Your task to perform on an android device: Clear the shopping cart on ebay.com. Add energizer triple a to the cart on ebay.com Image 0: 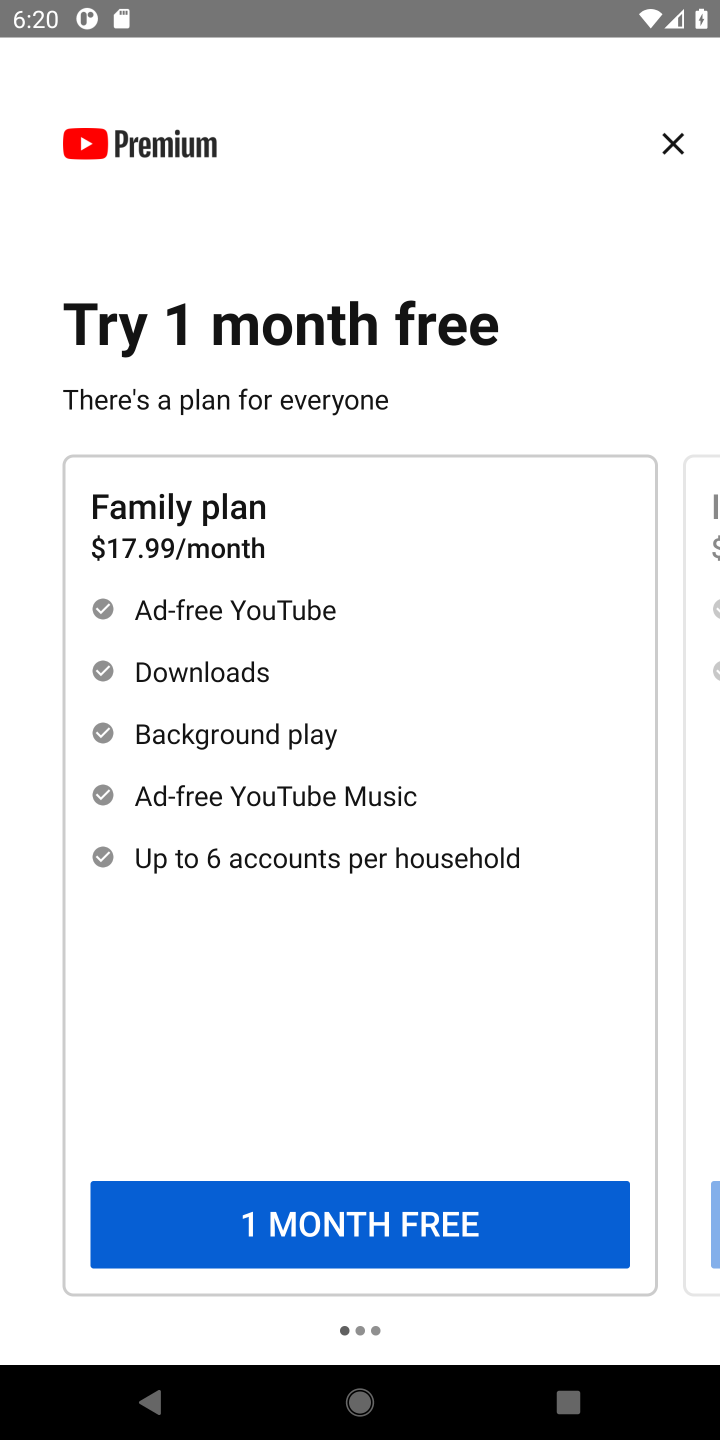
Step 0: press home button
Your task to perform on an android device: Clear the shopping cart on ebay.com. Add energizer triple a to the cart on ebay.com Image 1: 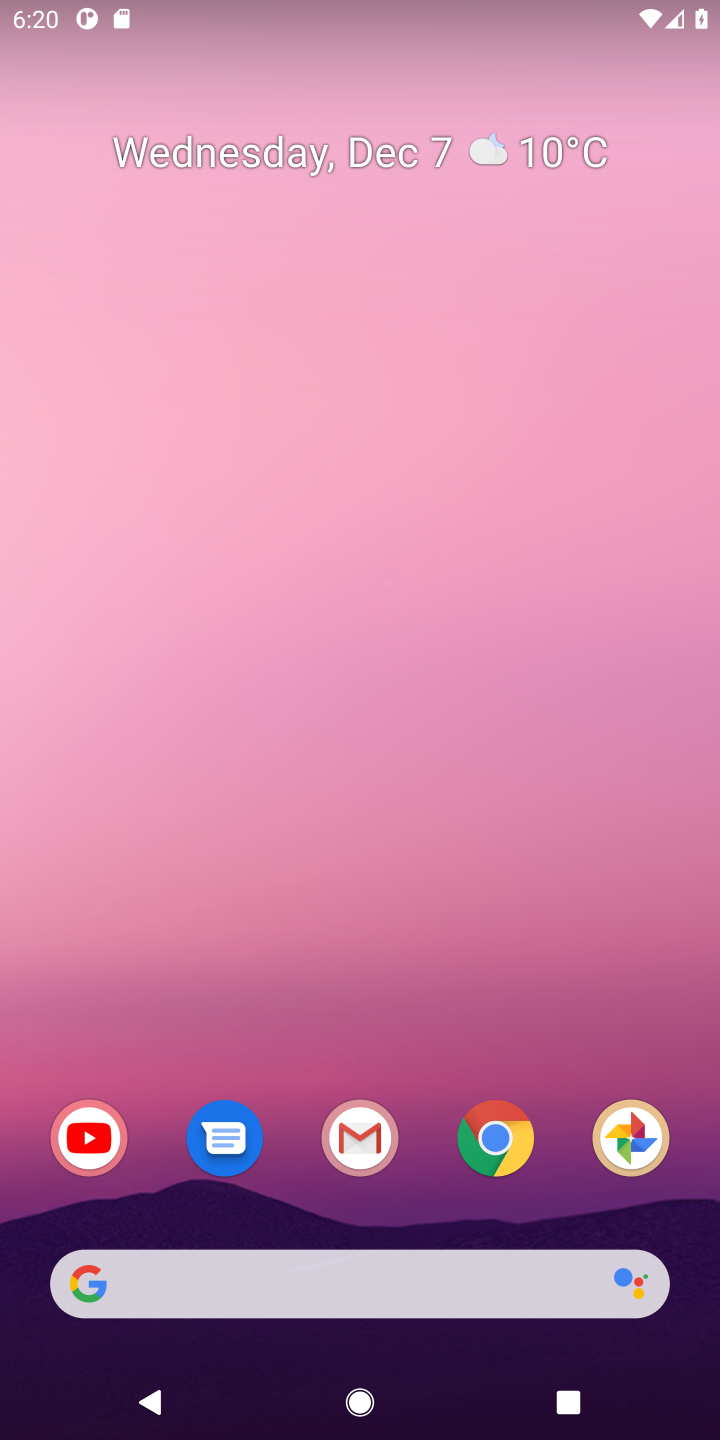
Step 1: click (138, 1275)
Your task to perform on an android device: Clear the shopping cart on ebay.com. Add energizer triple a to the cart on ebay.com Image 2: 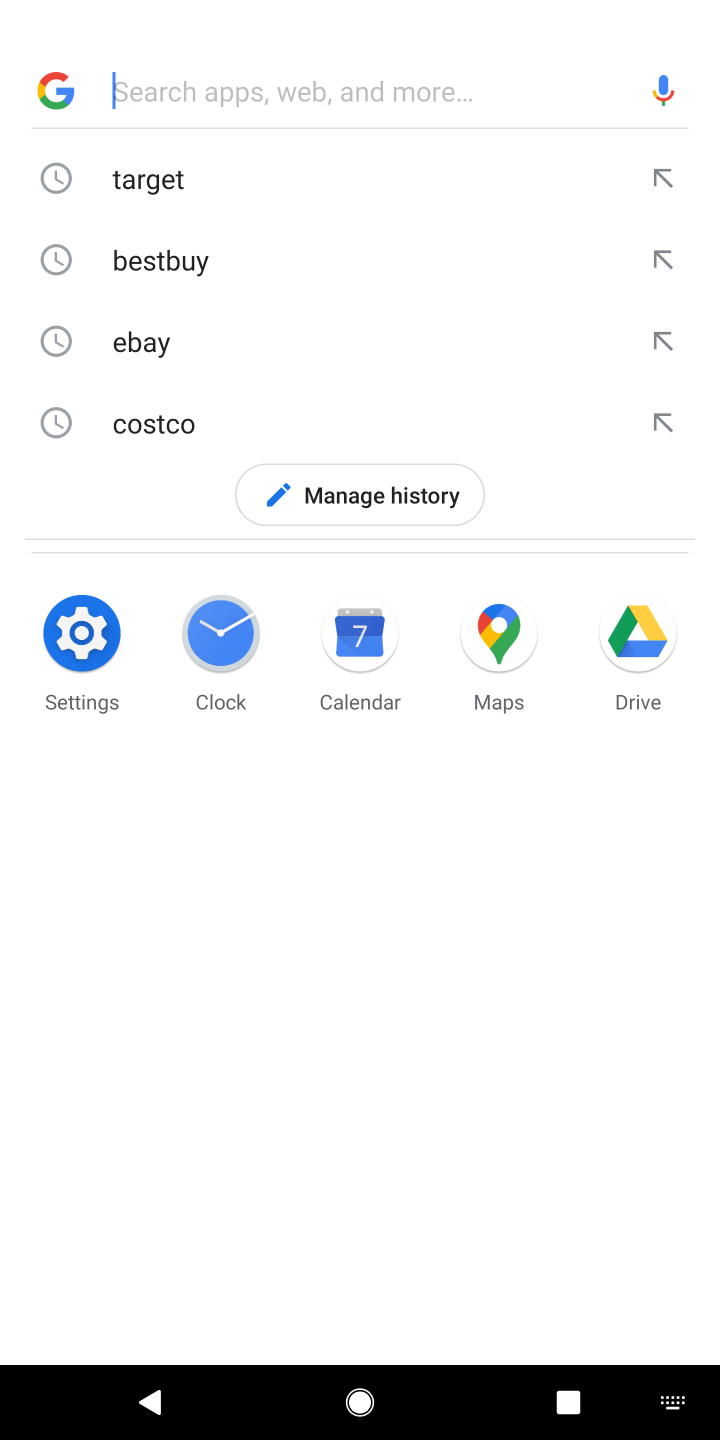
Step 2: press enter
Your task to perform on an android device: Clear the shopping cart on ebay.com. Add energizer triple a to the cart on ebay.com Image 3: 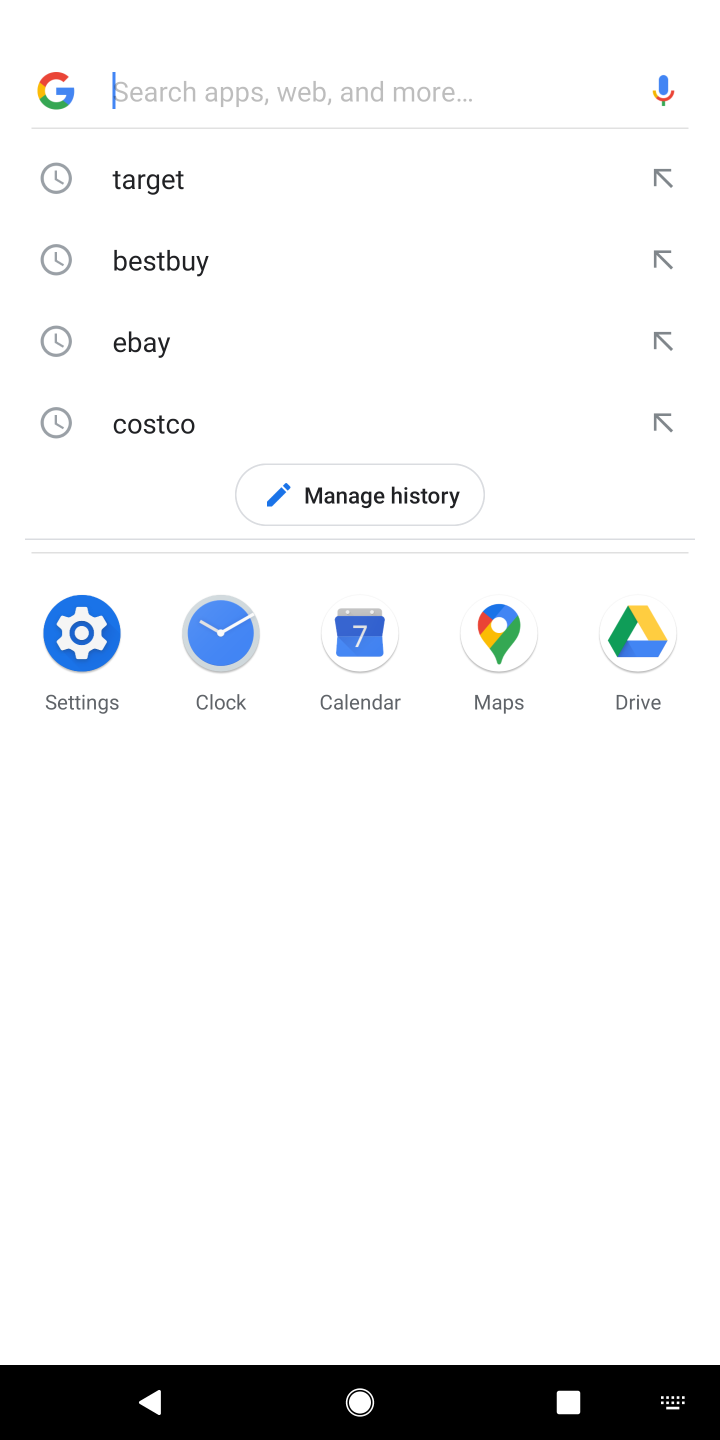
Step 3: type "ebay.com"
Your task to perform on an android device: Clear the shopping cart on ebay.com. Add energizer triple a to the cart on ebay.com Image 4: 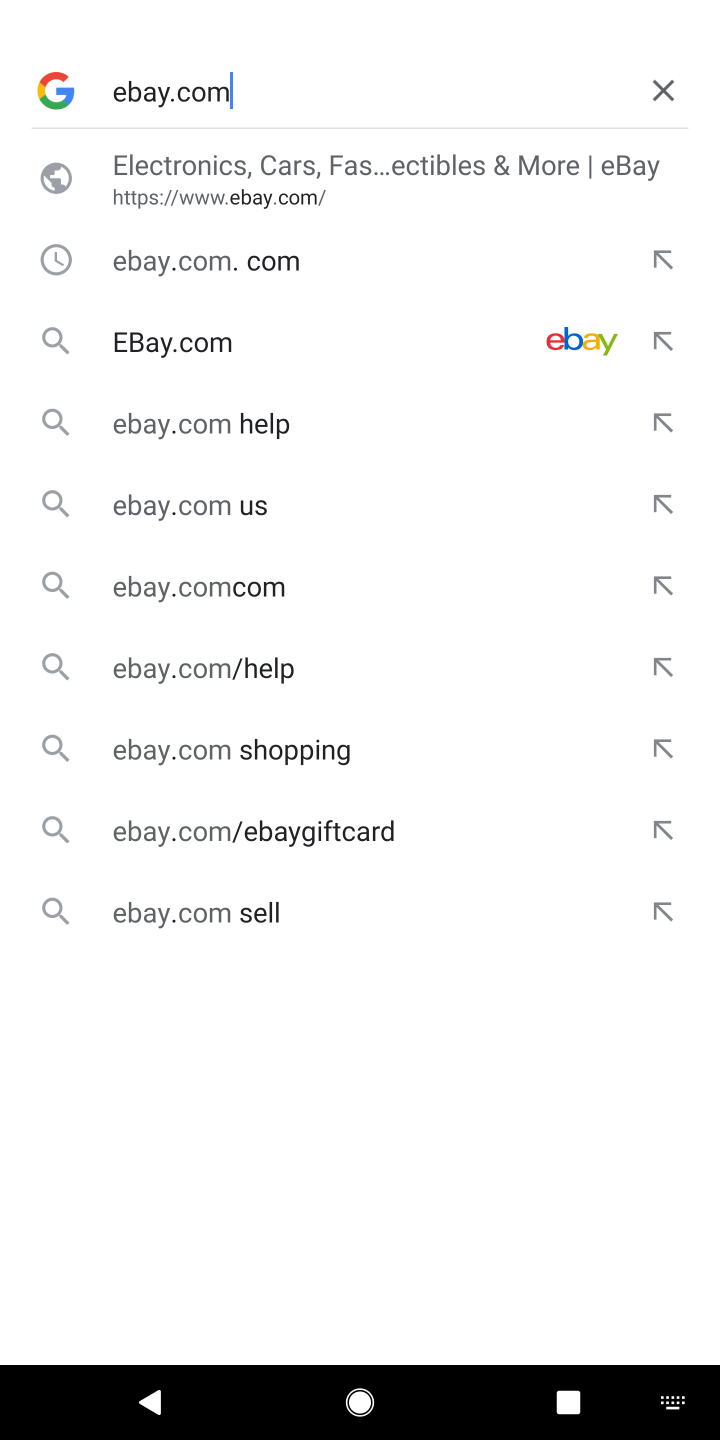
Step 4: press enter
Your task to perform on an android device: Clear the shopping cart on ebay.com. Add energizer triple a to the cart on ebay.com Image 5: 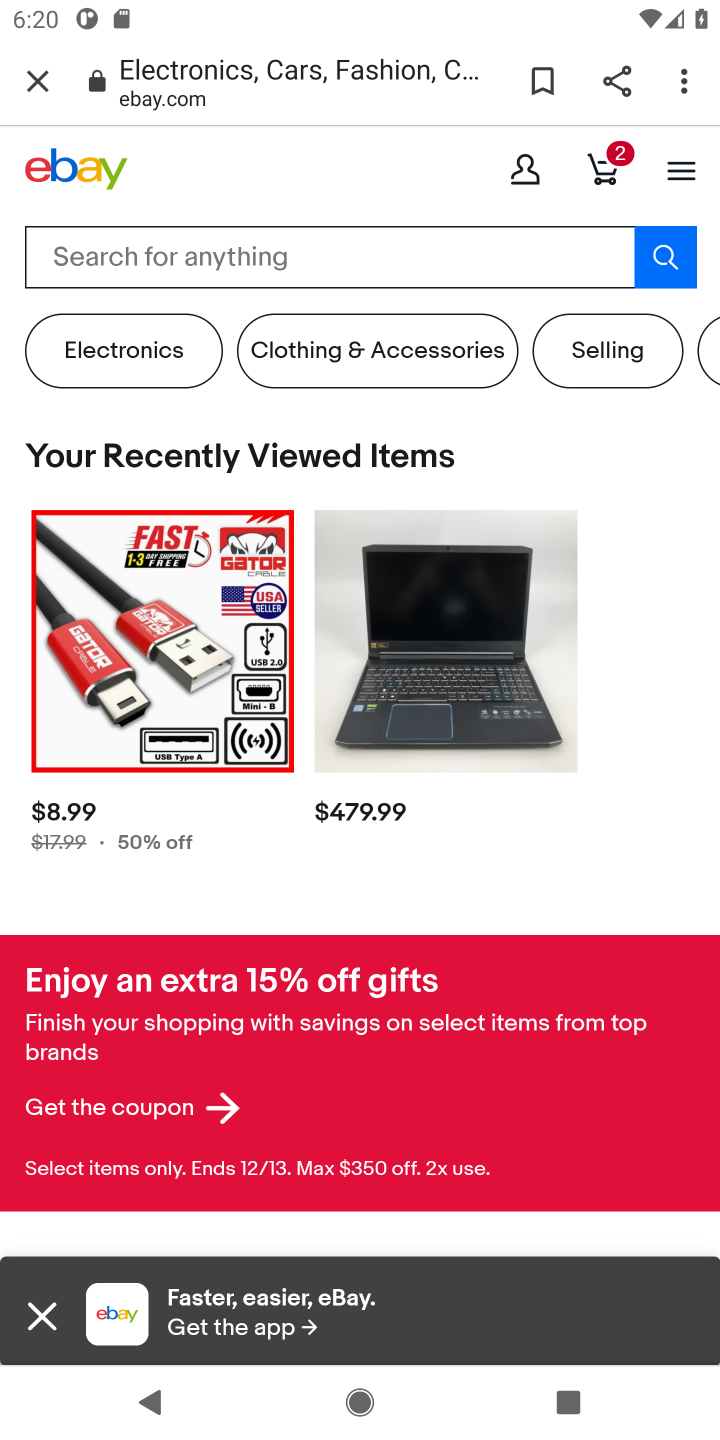
Step 5: click (610, 160)
Your task to perform on an android device: Clear the shopping cart on ebay.com. Add energizer triple a to the cart on ebay.com Image 6: 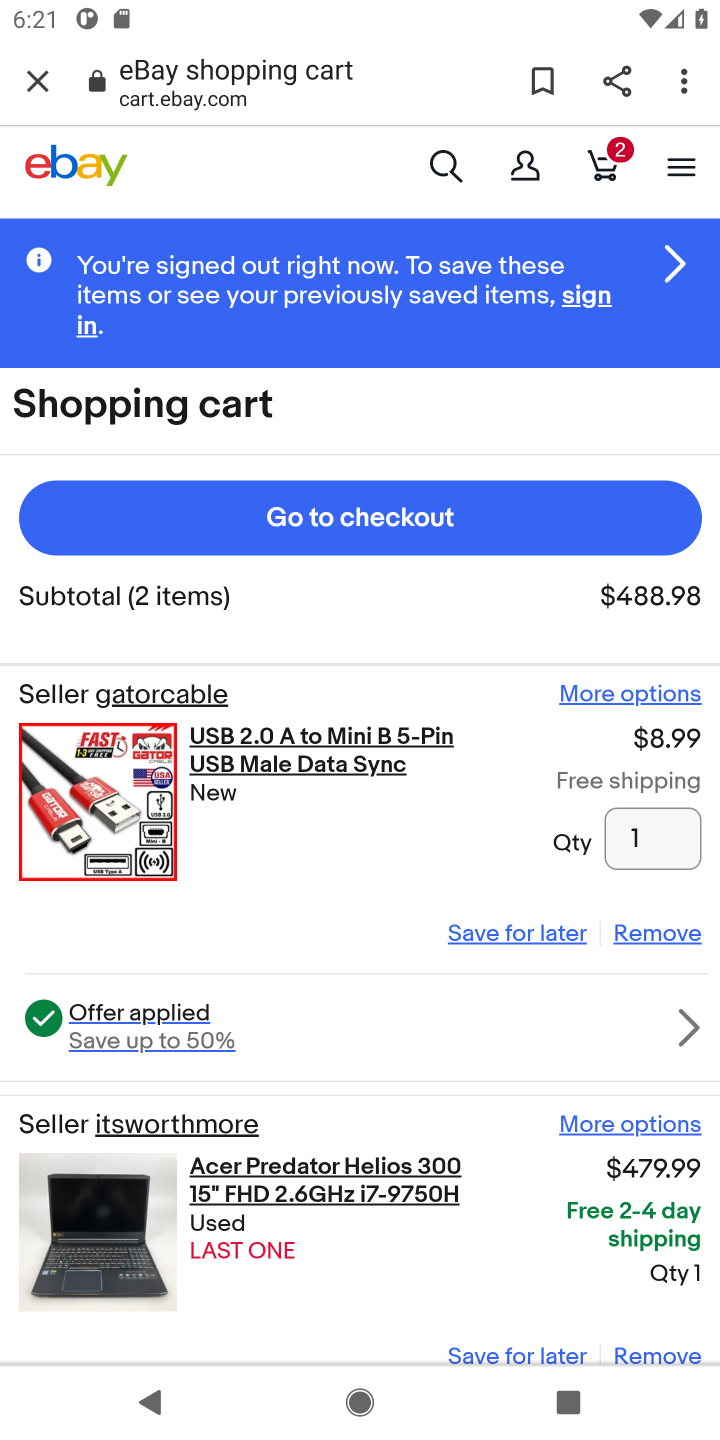
Step 6: click (656, 934)
Your task to perform on an android device: Clear the shopping cart on ebay.com. Add energizer triple a to the cart on ebay.com Image 7: 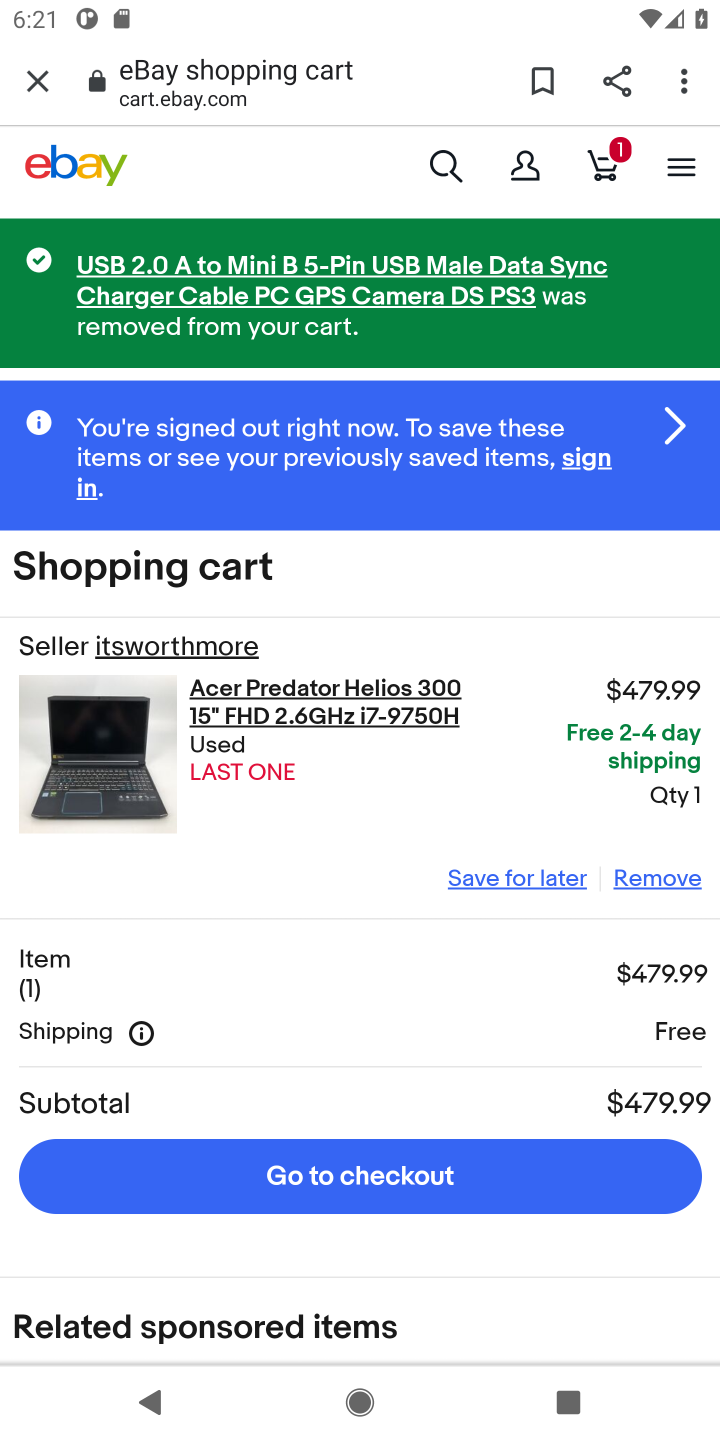
Step 7: click (634, 877)
Your task to perform on an android device: Clear the shopping cart on ebay.com. Add energizer triple a to the cart on ebay.com Image 8: 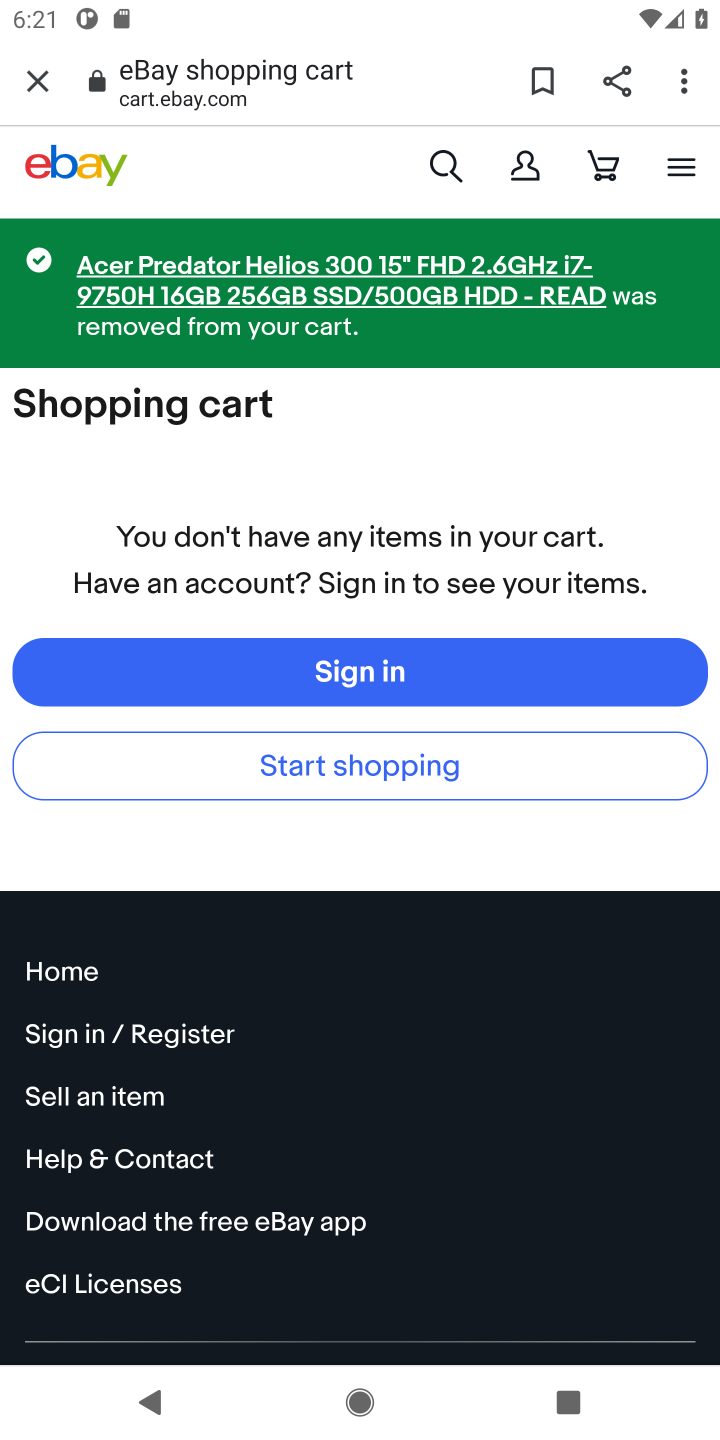
Step 8: click (442, 158)
Your task to perform on an android device: Clear the shopping cart on ebay.com. Add energizer triple a to the cart on ebay.com Image 9: 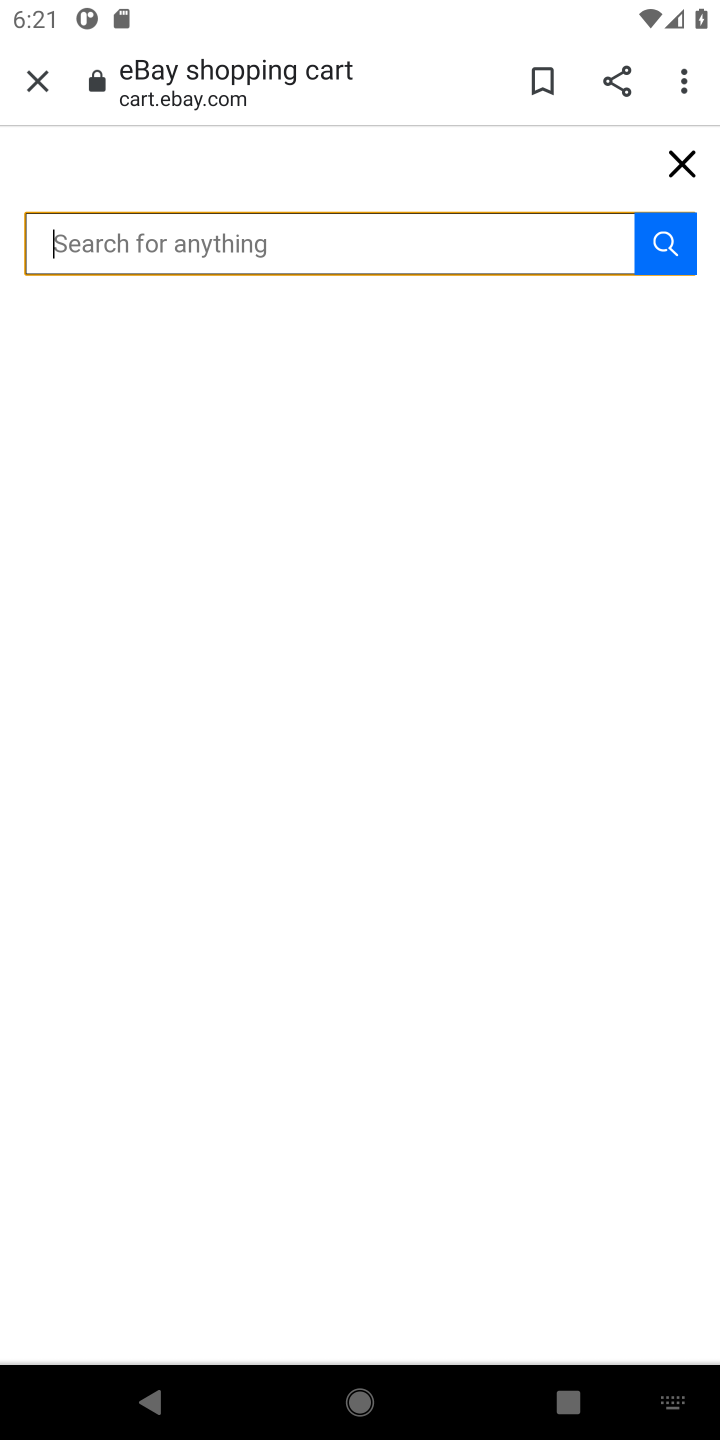
Step 9: press enter
Your task to perform on an android device: Clear the shopping cart on ebay.com. Add energizer triple a to the cart on ebay.com Image 10: 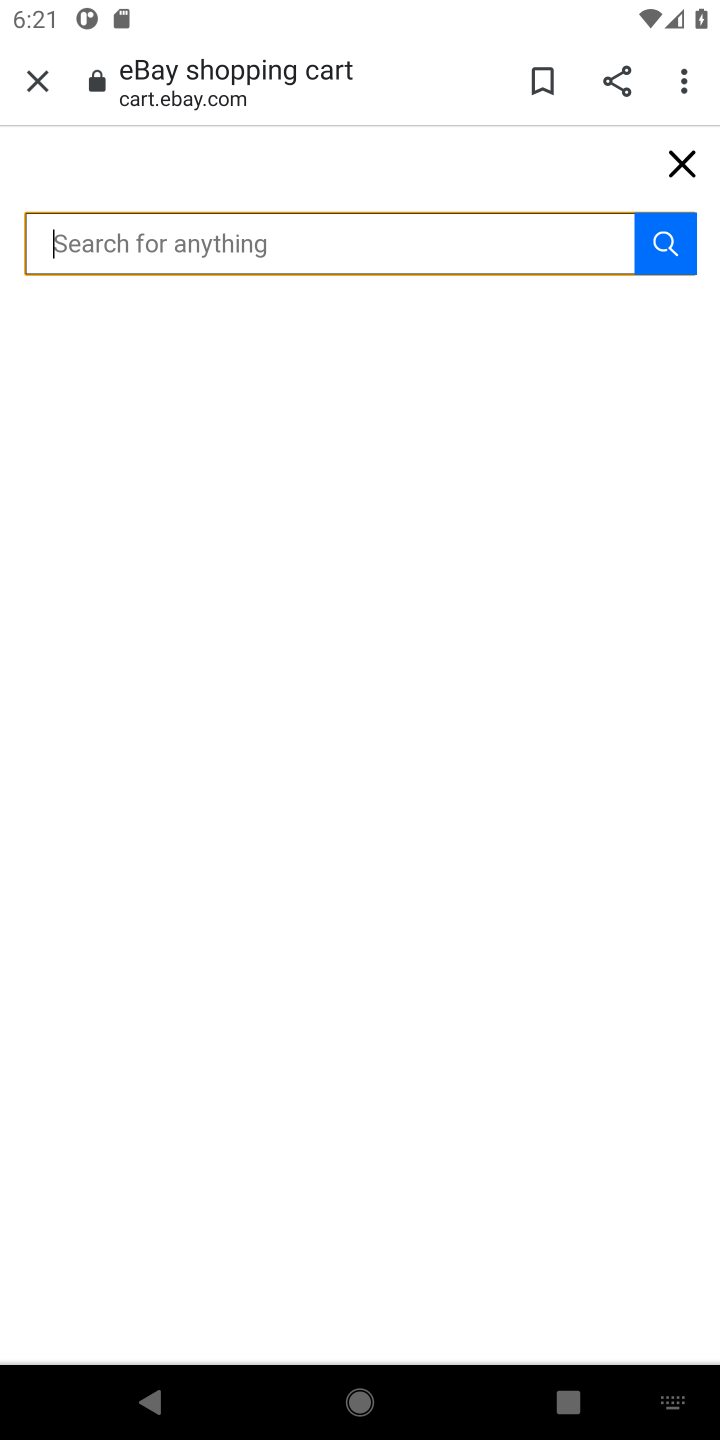
Step 10: type "energizer triple a"
Your task to perform on an android device: Clear the shopping cart on ebay.com. Add energizer triple a to the cart on ebay.com Image 11: 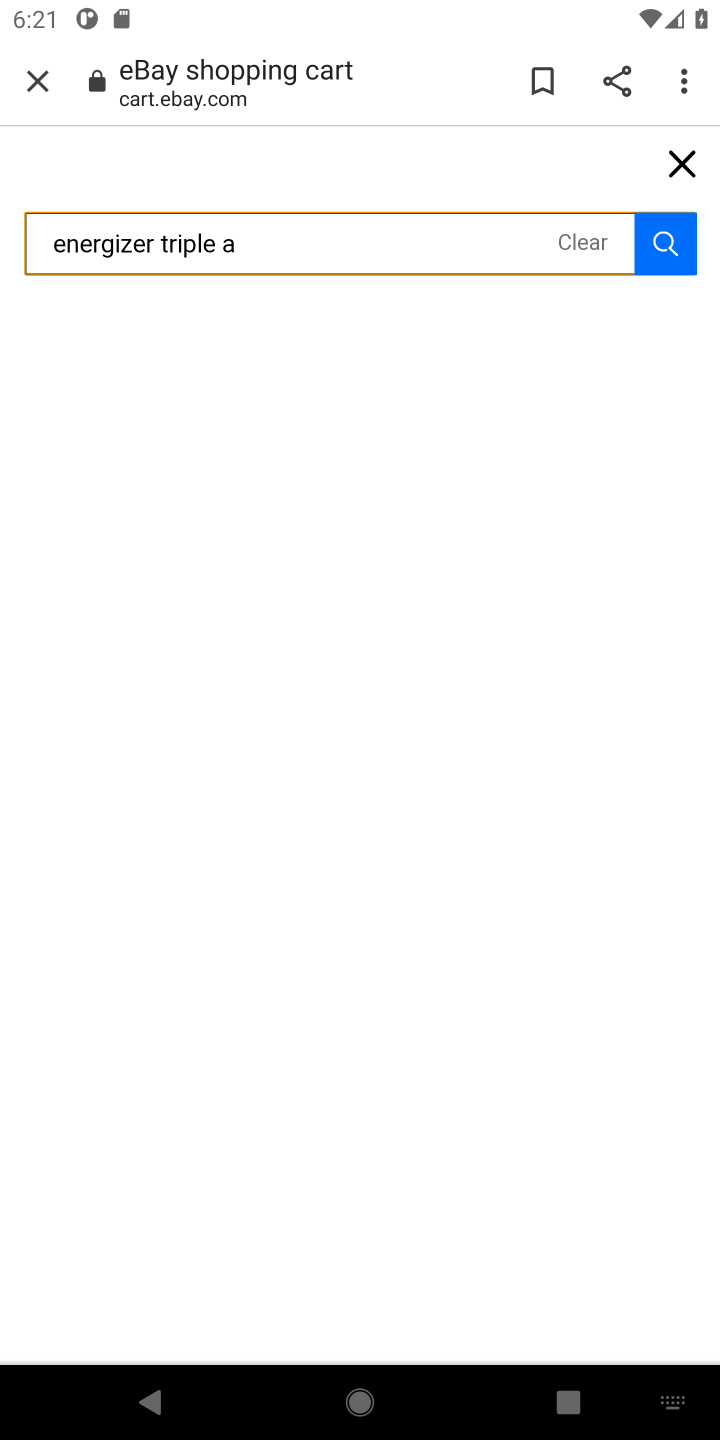
Step 11: click (661, 250)
Your task to perform on an android device: Clear the shopping cart on ebay.com. Add energizer triple a to the cart on ebay.com Image 12: 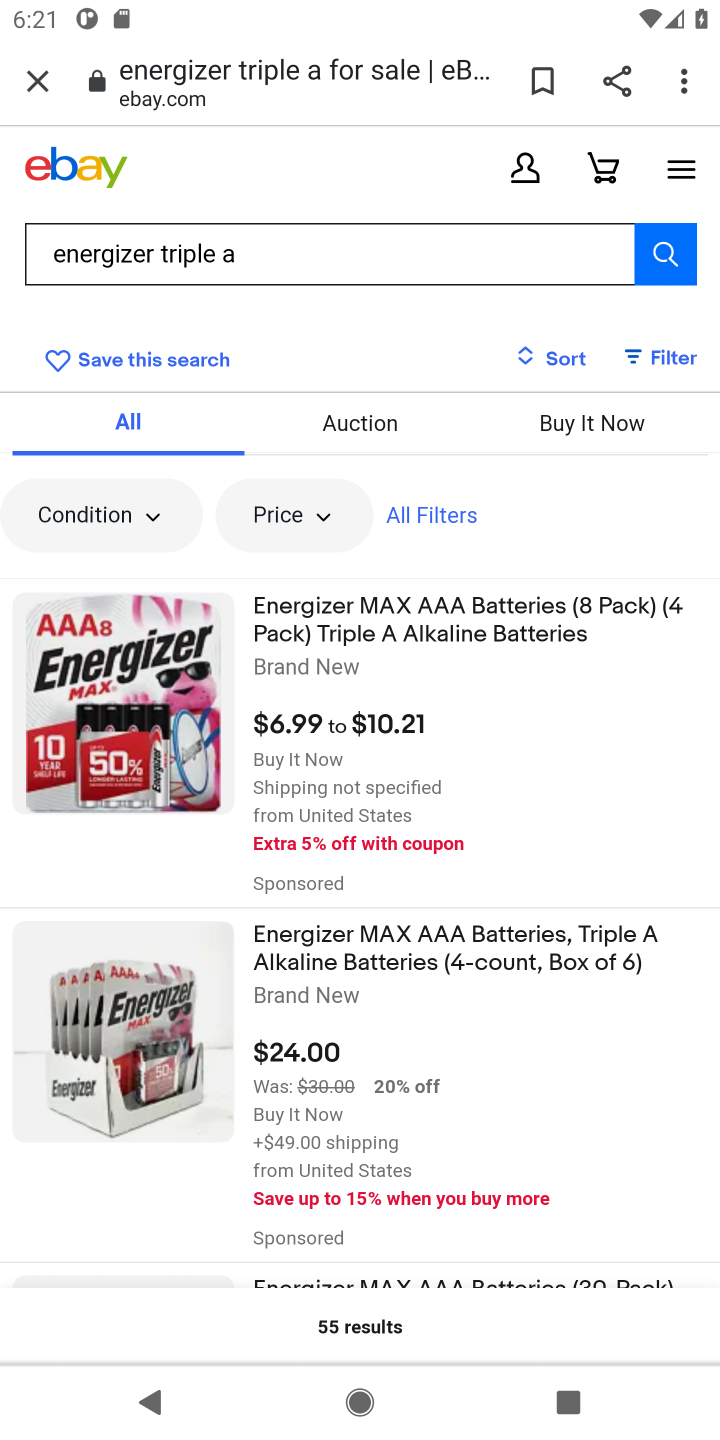
Step 12: click (366, 634)
Your task to perform on an android device: Clear the shopping cart on ebay.com. Add energizer triple a to the cart on ebay.com Image 13: 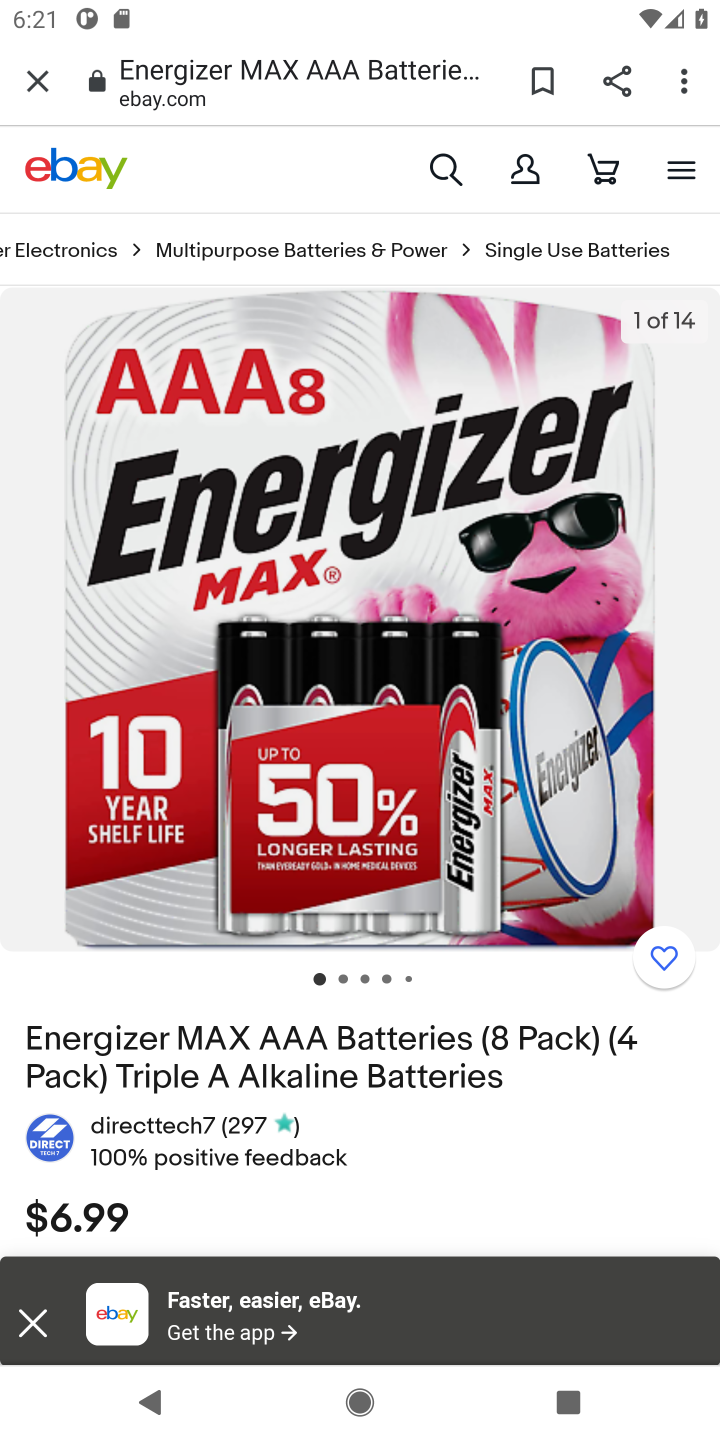
Step 13: drag from (435, 1152) to (484, 694)
Your task to perform on an android device: Clear the shopping cart on ebay.com. Add energizer triple a to the cart on ebay.com Image 14: 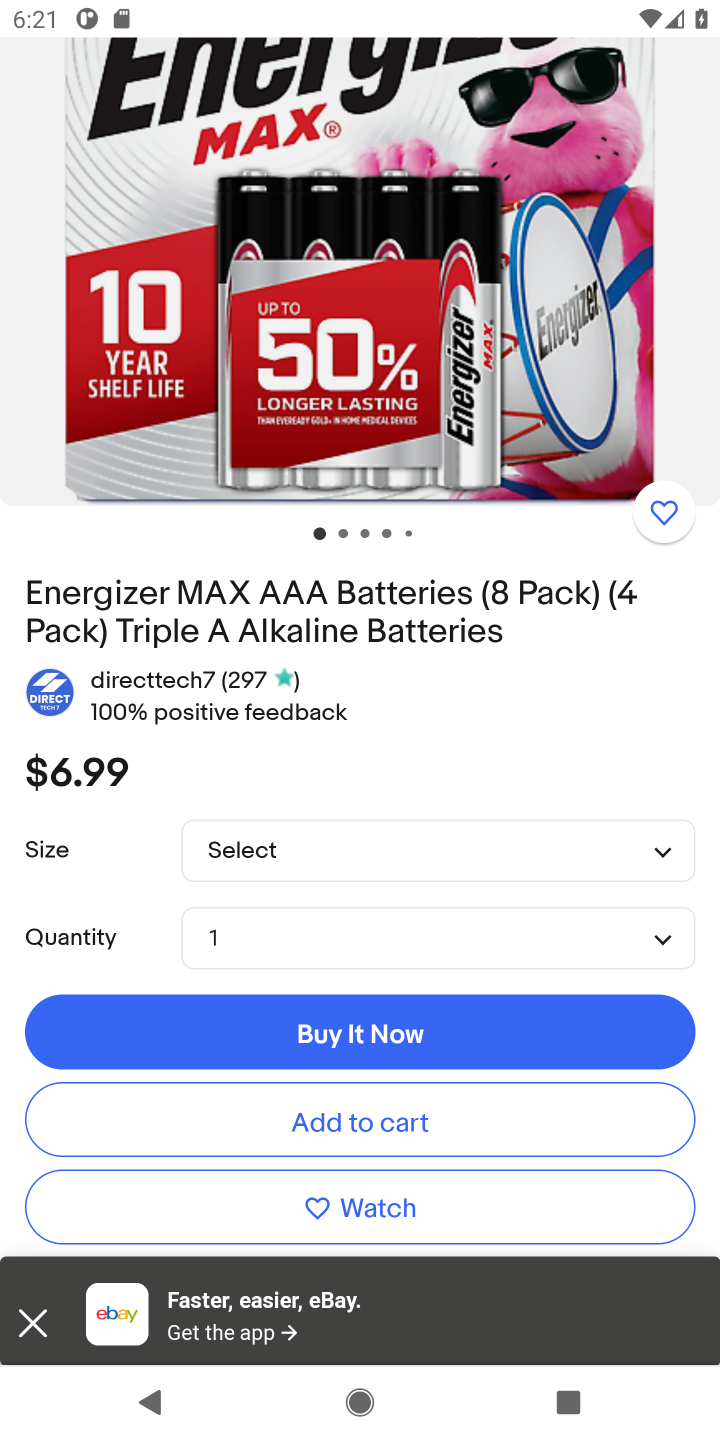
Step 14: drag from (483, 1081) to (537, 532)
Your task to perform on an android device: Clear the shopping cart on ebay.com. Add energizer triple a to the cart on ebay.com Image 15: 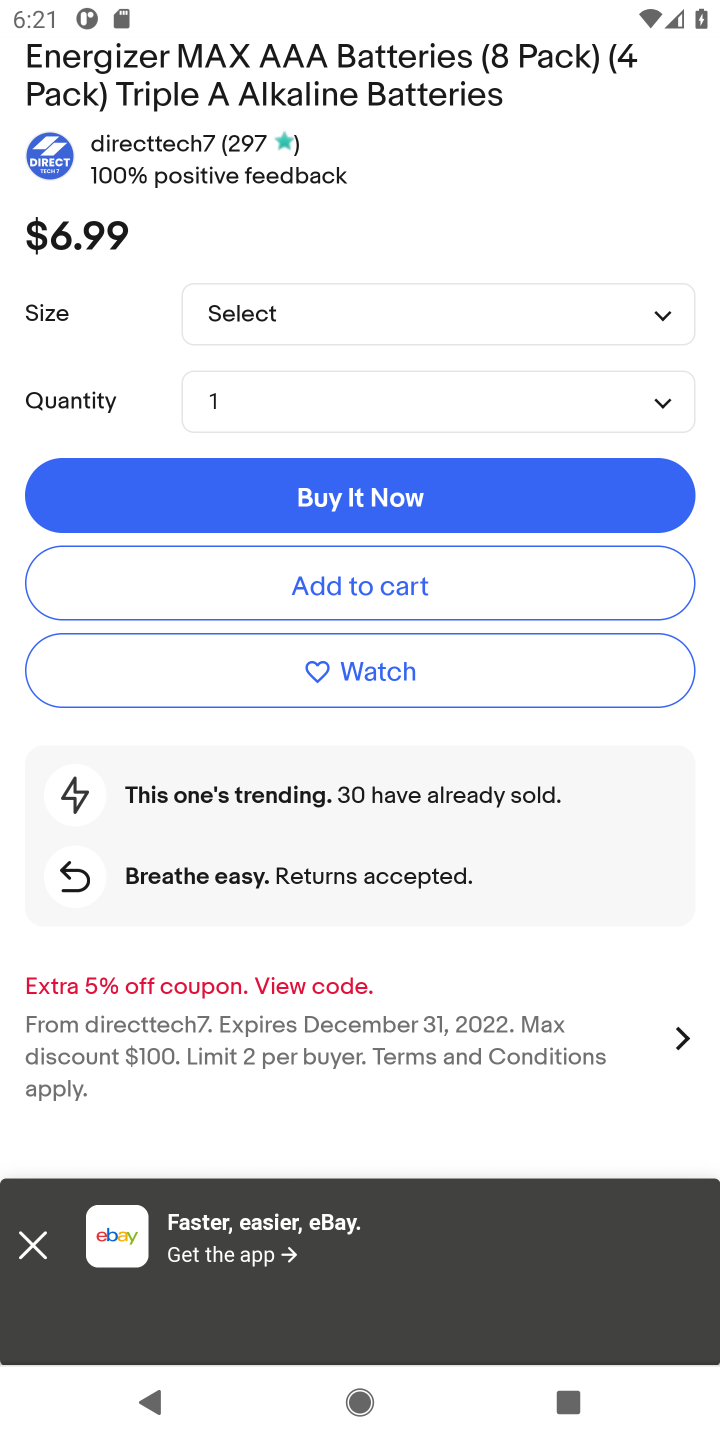
Step 15: click (353, 590)
Your task to perform on an android device: Clear the shopping cart on ebay.com. Add energizer triple a to the cart on ebay.com Image 16: 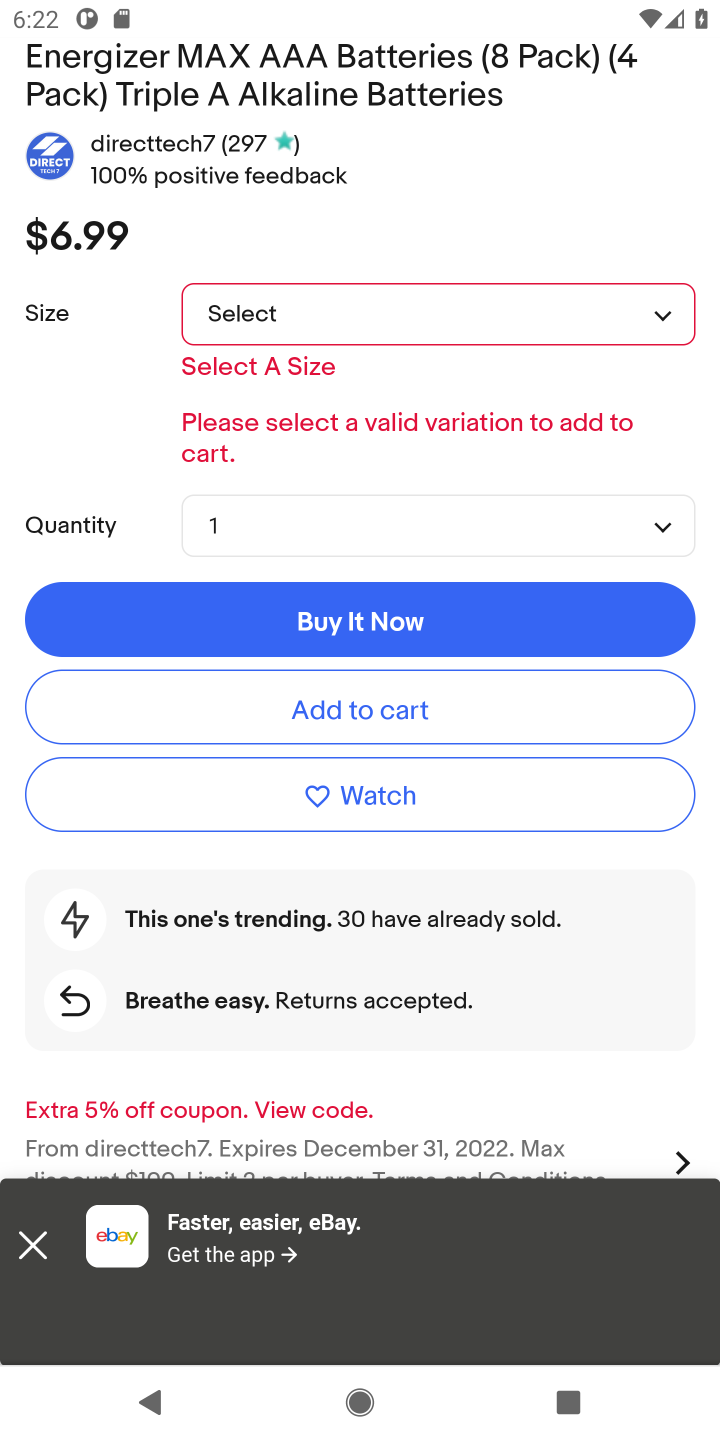
Step 16: click (661, 309)
Your task to perform on an android device: Clear the shopping cart on ebay.com. Add energizer triple a to the cart on ebay.com Image 17: 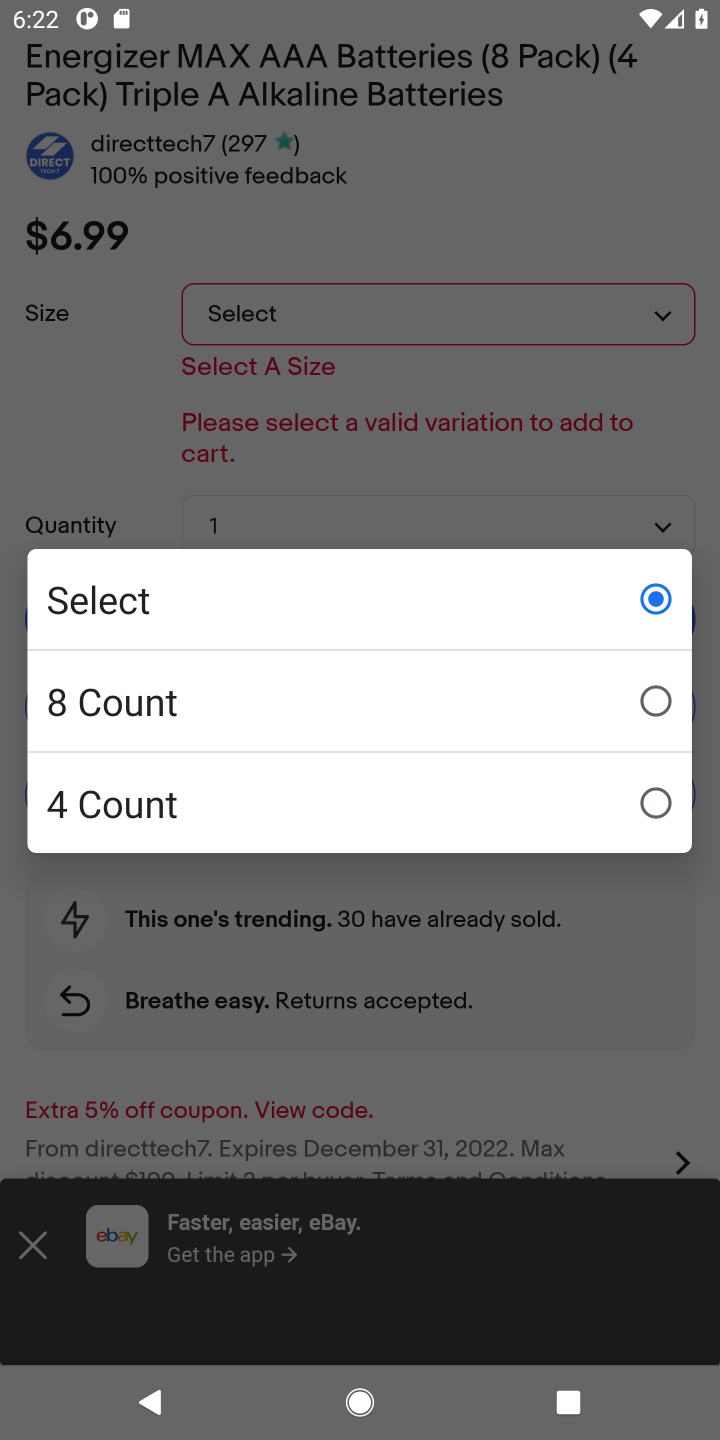
Step 17: click (662, 705)
Your task to perform on an android device: Clear the shopping cart on ebay.com. Add energizer triple a to the cart on ebay.com Image 18: 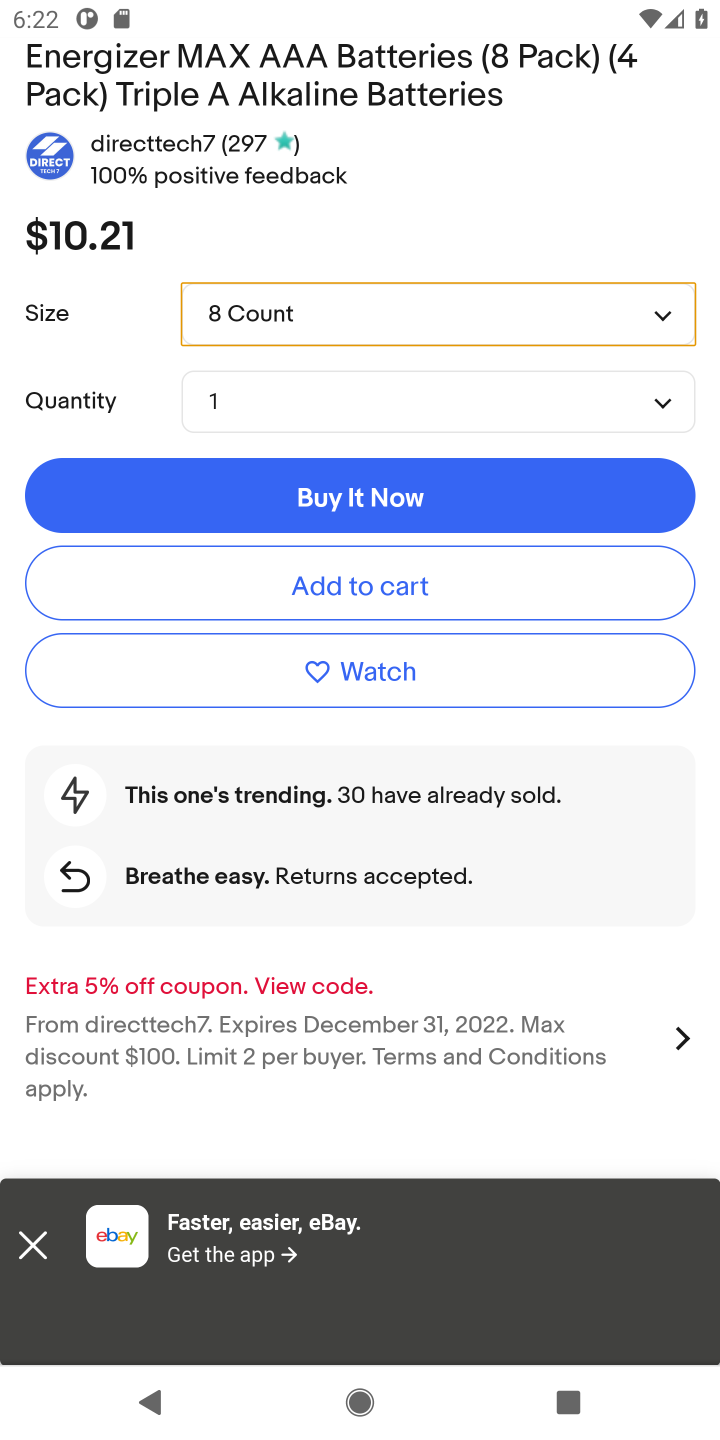
Step 18: click (454, 590)
Your task to perform on an android device: Clear the shopping cart on ebay.com. Add energizer triple a to the cart on ebay.com Image 19: 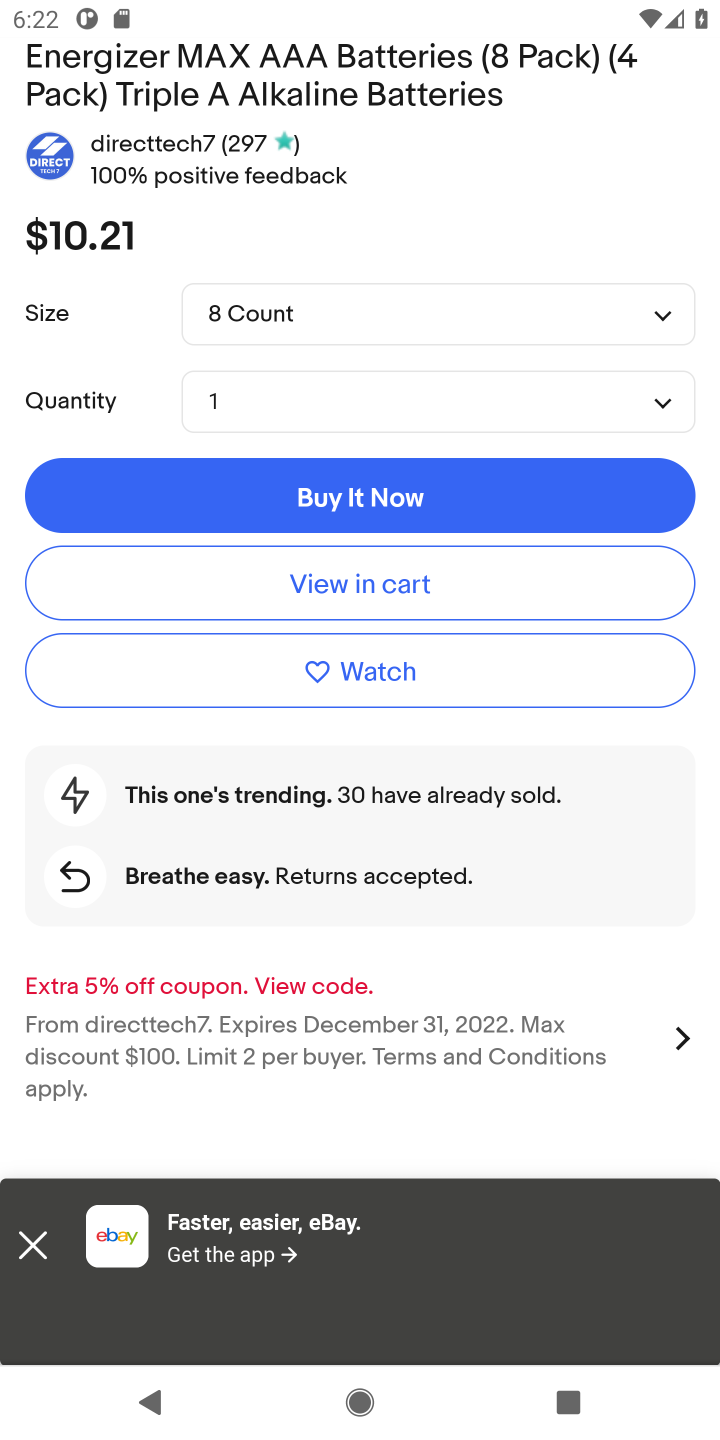
Step 19: task complete